Your task to perform on an android device: change the clock display to show seconds Image 0: 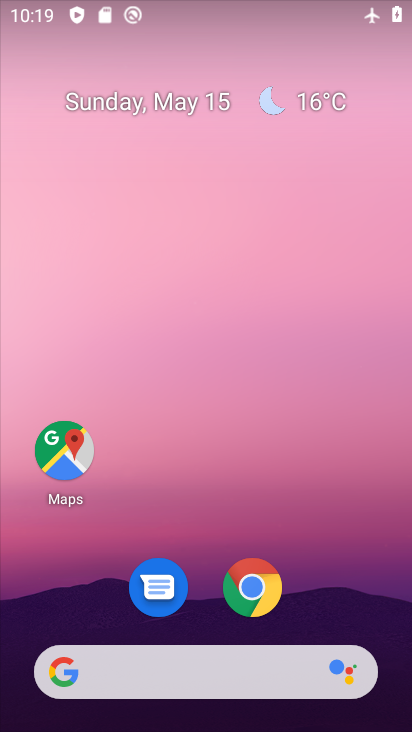
Step 0: drag from (312, 555) to (267, 1)
Your task to perform on an android device: change the clock display to show seconds Image 1: 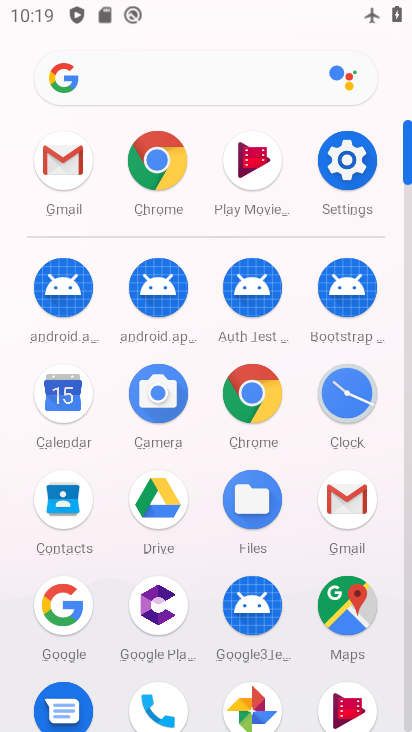
Step 1: click (344, 390)
Your task to perform on an android device: change the clock display to show seconds Image 2: 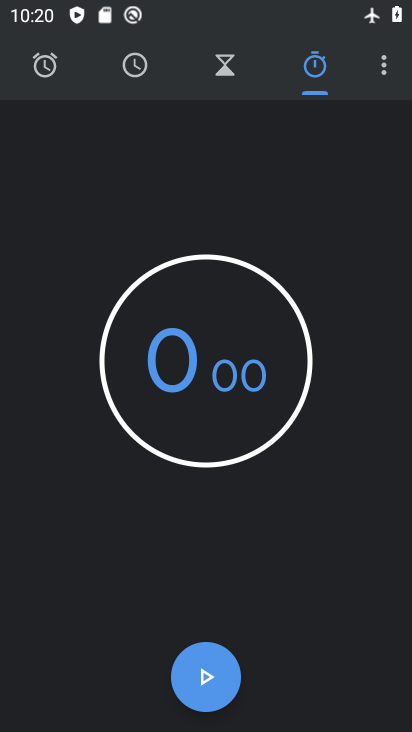
Step 2: drag from (379, 63) to (305, 123)
Your task to perform on an android device: change the clock display to show seconds Image 3: 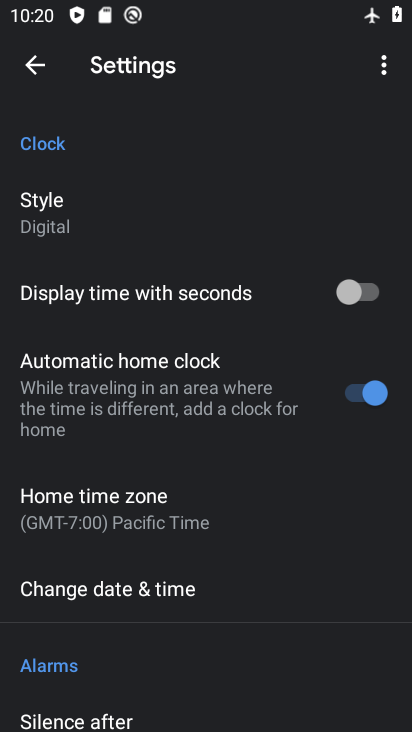
Step 3: click (363, 293)
Your task to perform on an android device: change the clock display to show seconds Image 4: 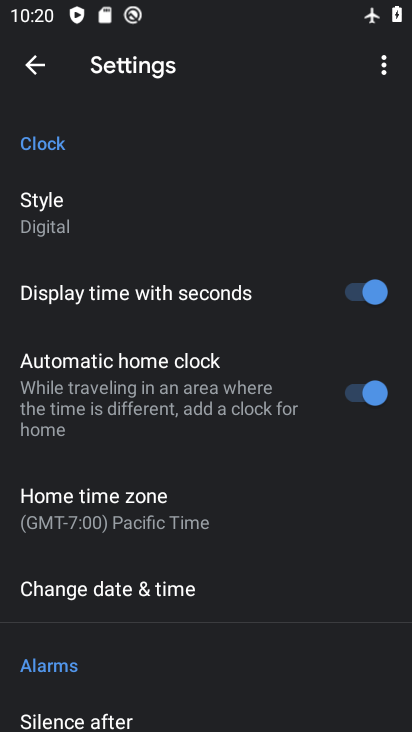
Step 4: task complete